Your task to perform on an android device: Open notification settings Image 0: 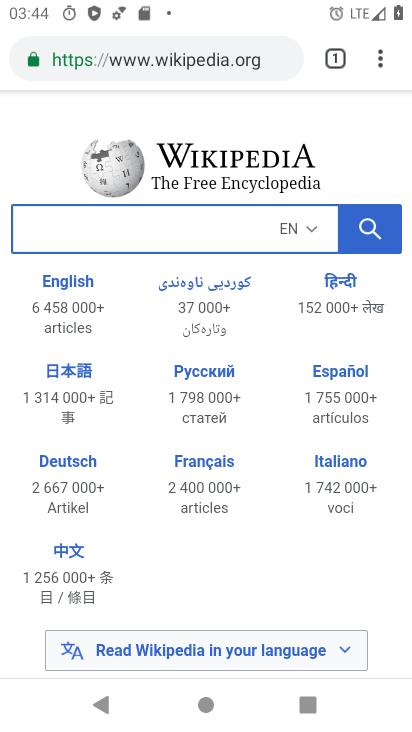
Step 0: press home button
Your task to perform on an android device: Open notification settings Image 1: 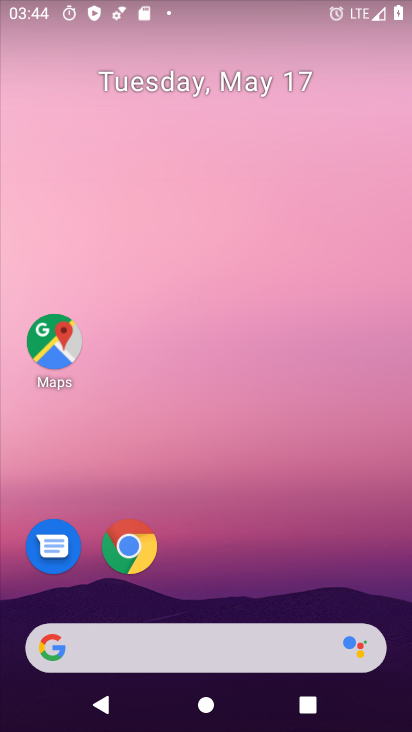
Step 1: drag from (225, 570) to (225, 24)
Your task to perform on an android device: Open notification settings Image 2: 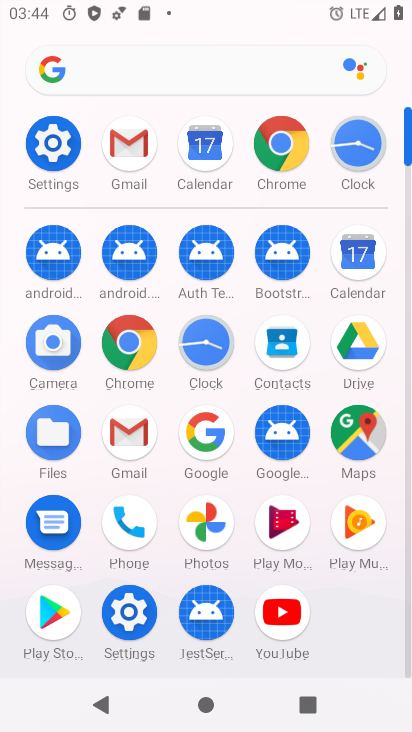
Step 2: click (30, 134)
Your task to perform on an android device: Open notification settings Image 3: 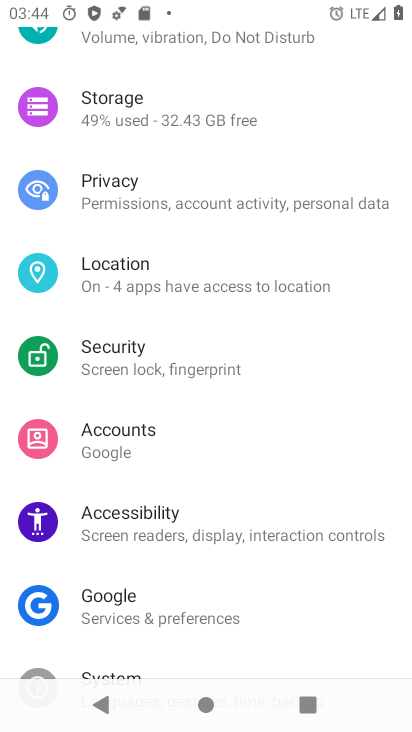
Step 3: drag from (173, 141) to (273, 715)
Your task to perform on an android device: Open notification settings Image 4: 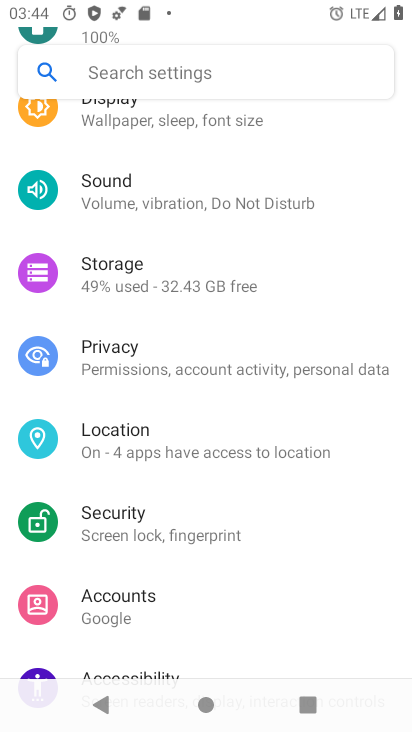
Step 4: drag from (138, 186) to (138, 532)
Your task to perform on an android device: Open notification settings Image 5: 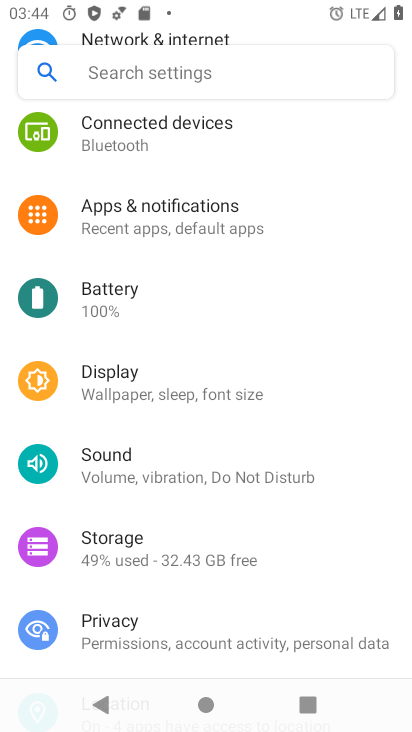
Step 5: click (180, 222)
Your task to perform on an android device: Open notification settings Image 6: 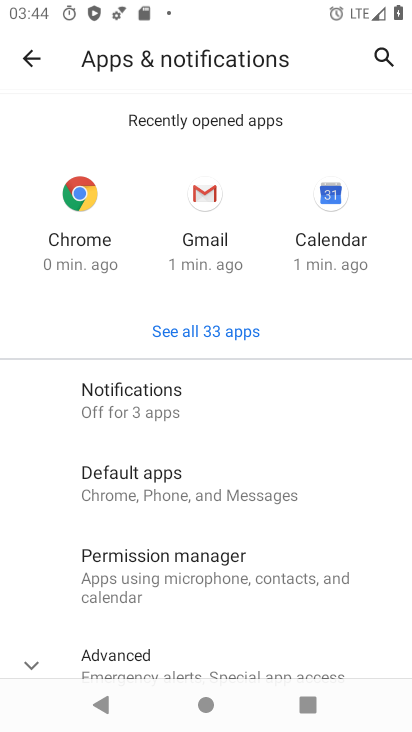
Step 6: task complete